Your task to perform on an android device: Open Chrome and go to settings Image 0: 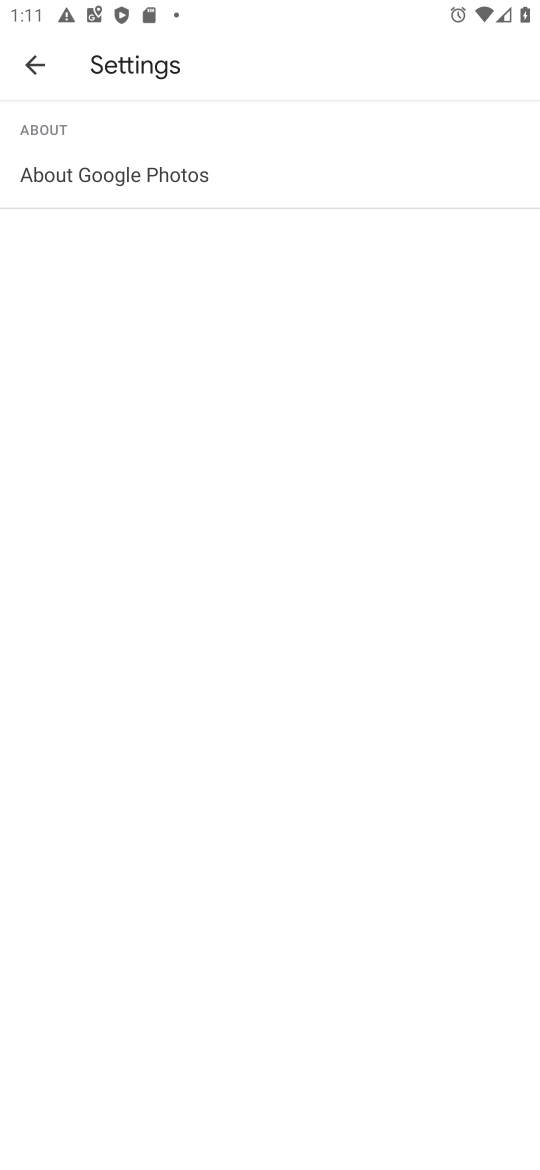
Step 0: press home button
Your task to perform on an android device: Open Chrome and go to settings Image 1: 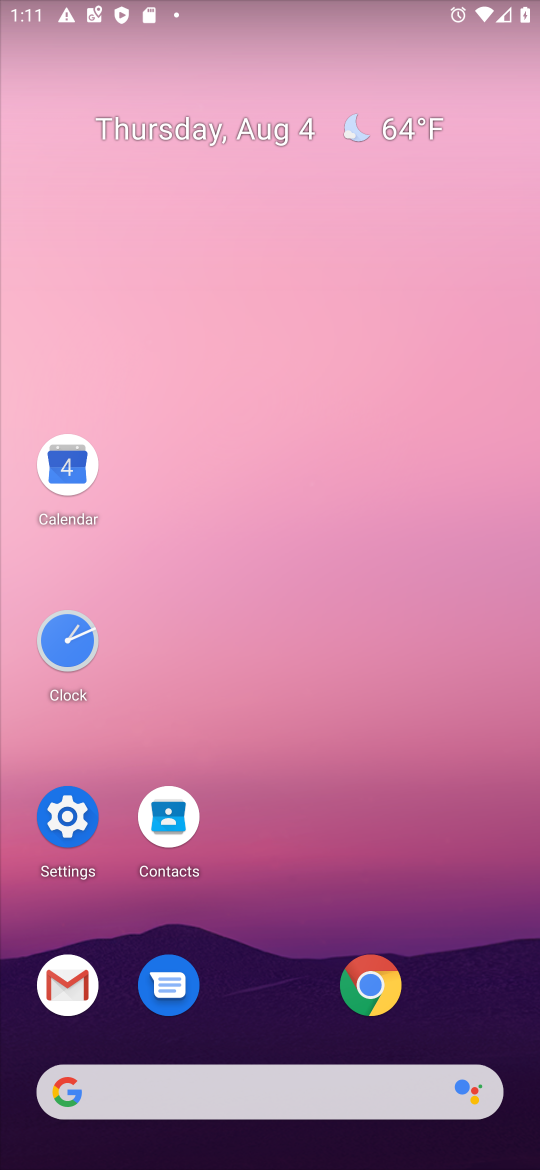
Step 1: click (377, 982)
Your task to perform on an android device: Open Chrome and go to settings Image 2: 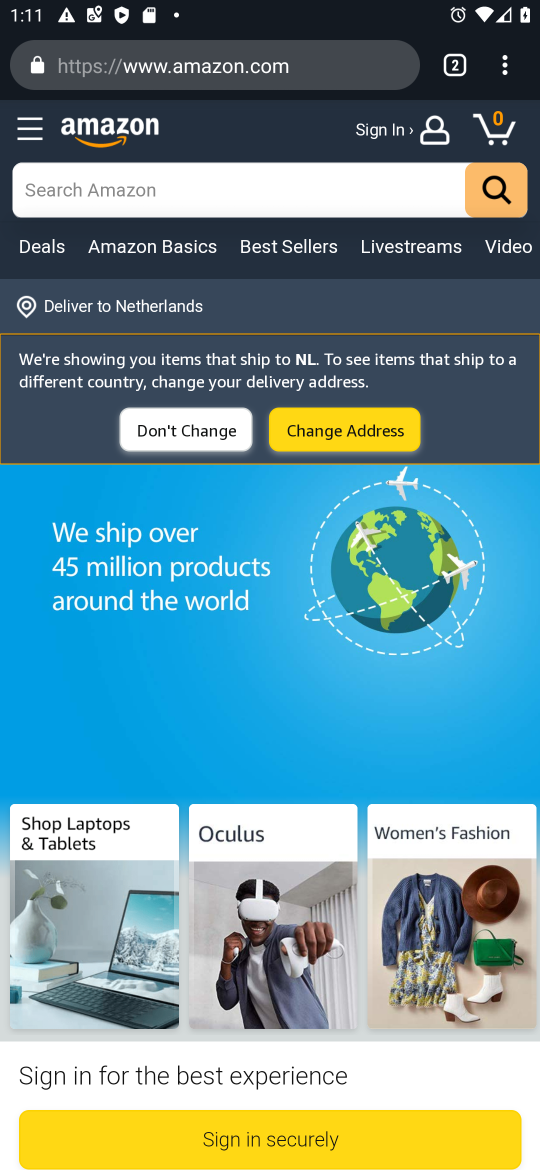
Step 2: click (510, 73)
Your task to perform on an android device: Open Chrome and go to settings Image 3: 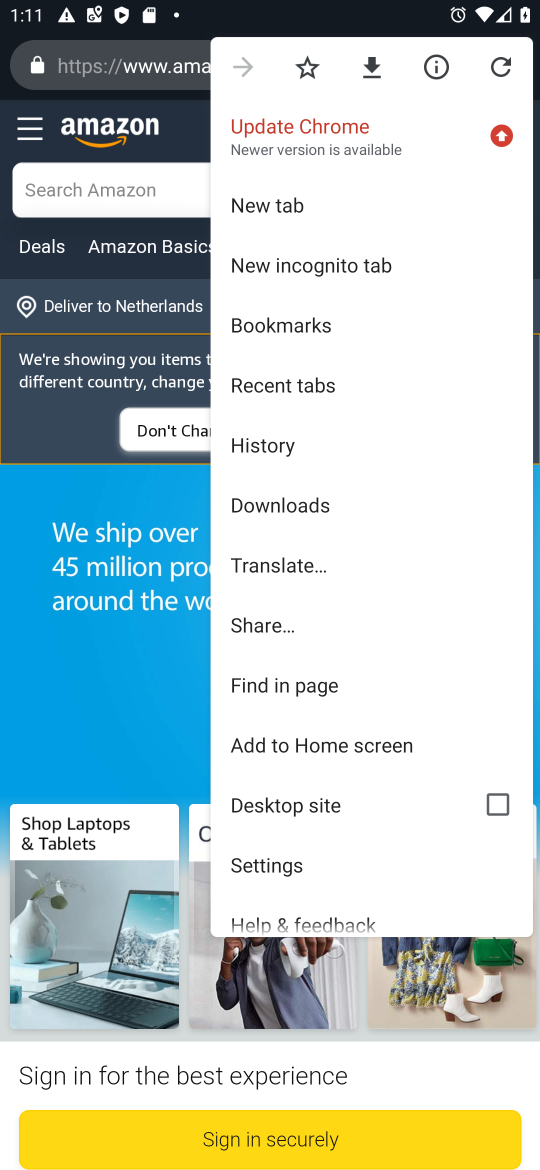
Step 3: click (273, 860)
Your task to perform on an android device: Open Chrome and go to settings Image 4: 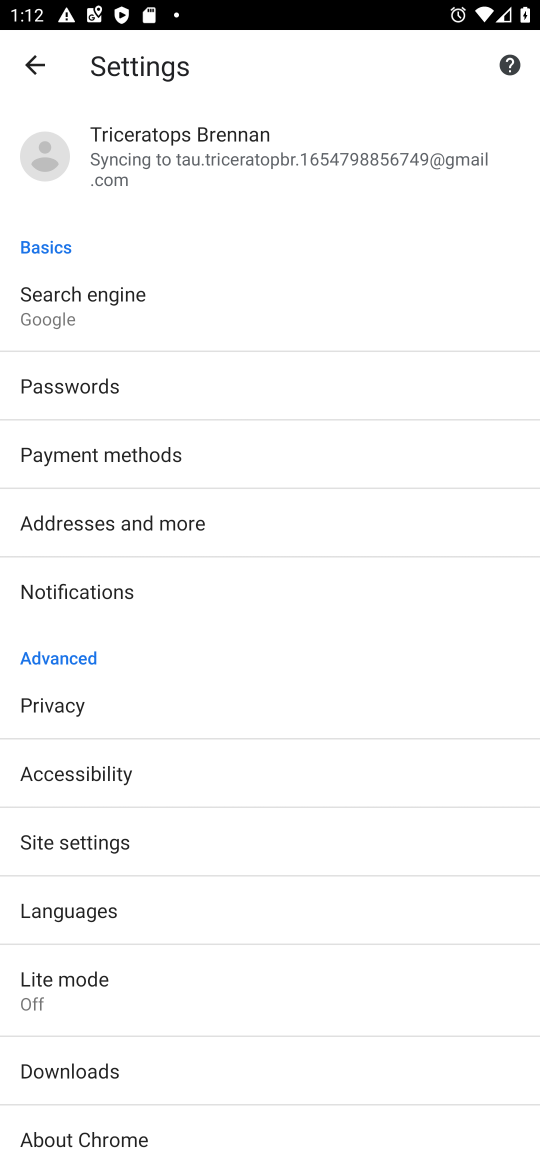
Step 4: task complete